Your task to perform on an android device: turn notification dots off Image 0: 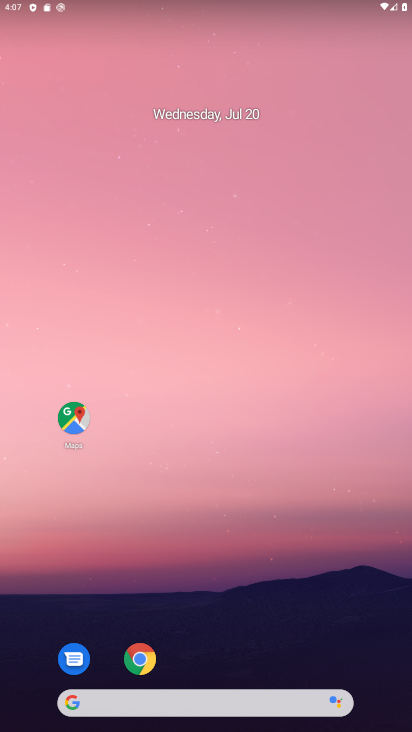
Step 0: drag from (261, 658) to (273, 9)
Your task to perform on an android device: turn notification dots off Image 1: 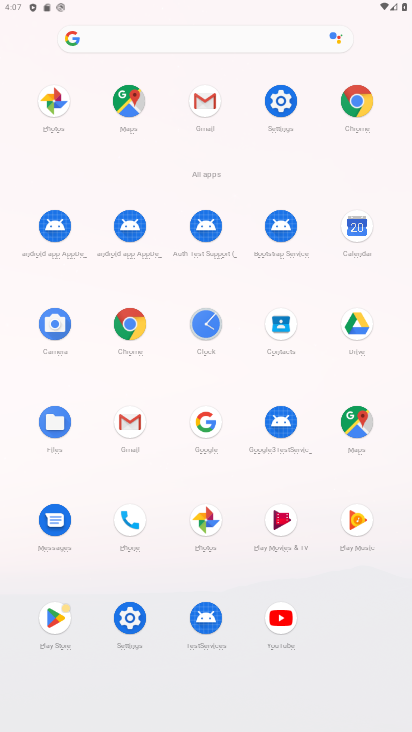
Step 1: click (280, 93)
Your task to perform on an android device: turn notification dots off Image 2: 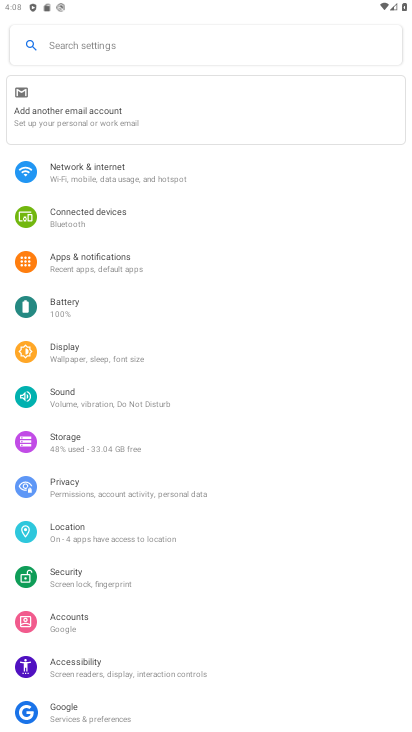
Step 2: click (106, 267)
Your task to perform on an android device: turn notification dots off Image 3: 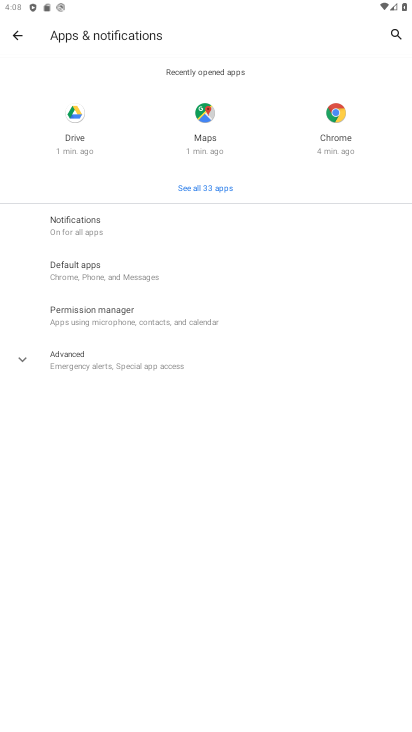
Step 3: click (102, 229)
Your task to perform on an android device: turn notification dots off Image 4: 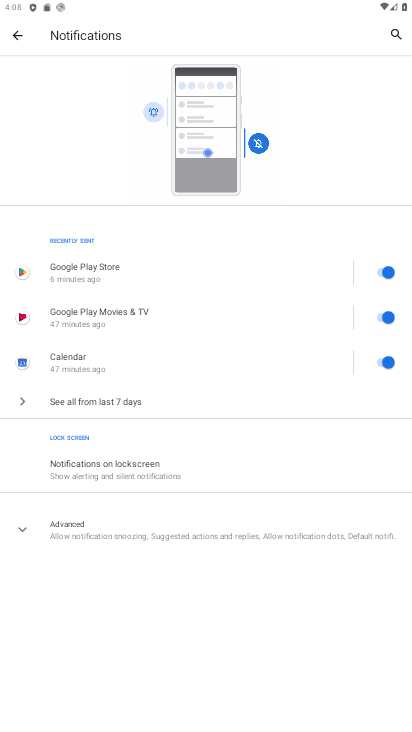
Step 4: click (128, 536)
Your task to perform on an android device: turn notification dots off Image 5: 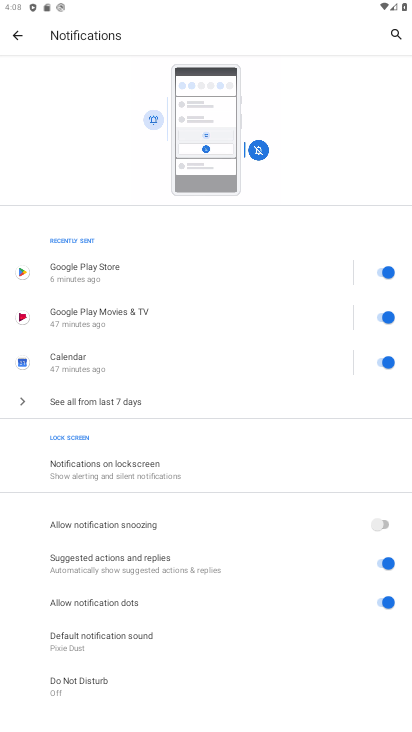
Step 5: click (382, 597)
Your task to perform on an android device: turn notification dots off Image 6: 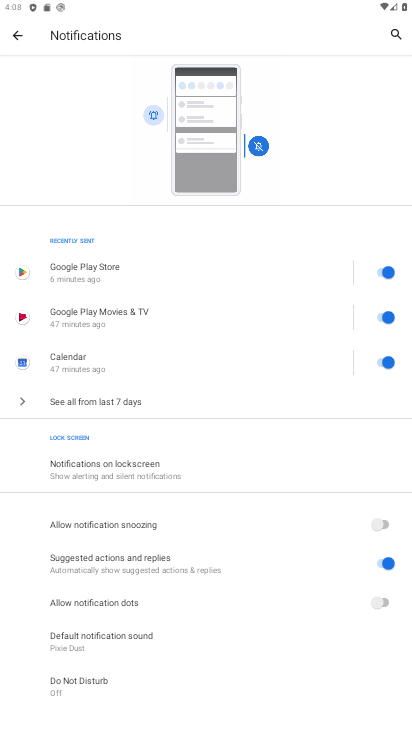
Step 6: task complete